Your task to perform on an android device: snooze an email in the gmail app Image 0: 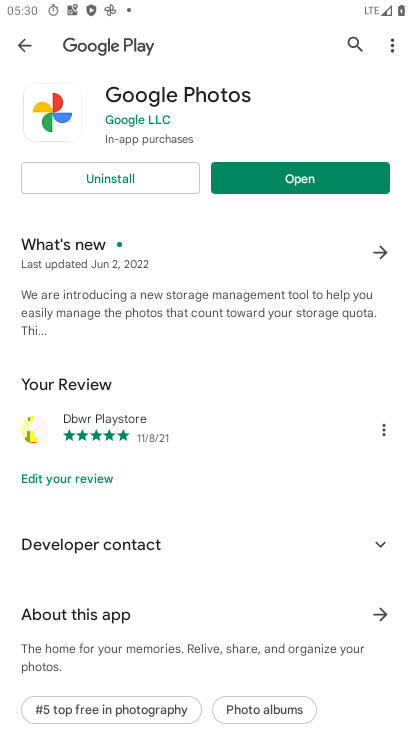
Step 0: press home button
Your task to perform on an android device: snooze an email in the gmail app Image 1: 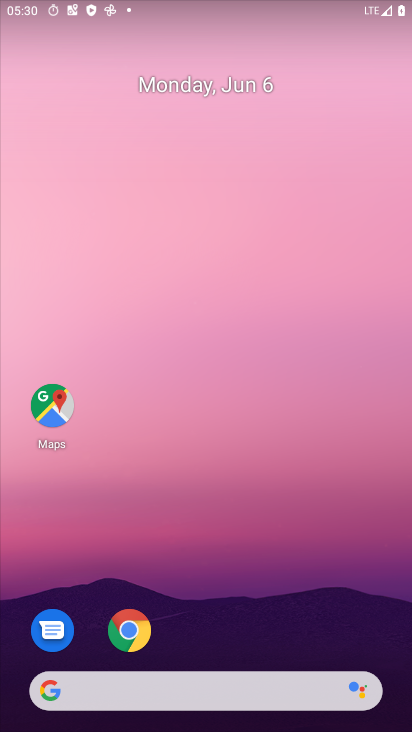
Step 1: drag from (233, 631) to (224, 91)
Your task to perform on an android device: snooze an email in the gmail app Image 2: 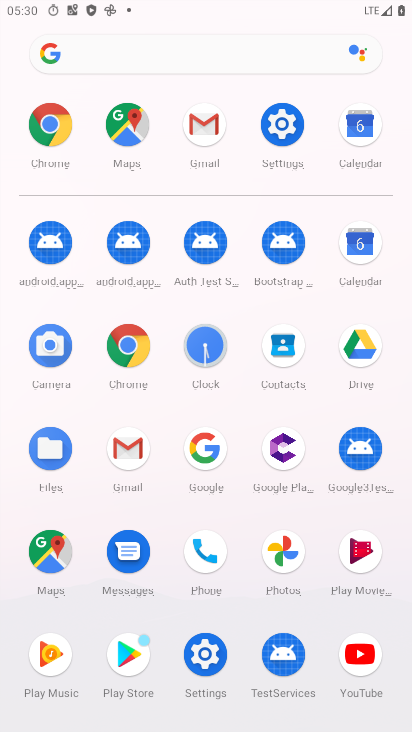
Step 2: click (121, 452)
Your task to perform on an android device: snooze an email in the gmail app Image 3: 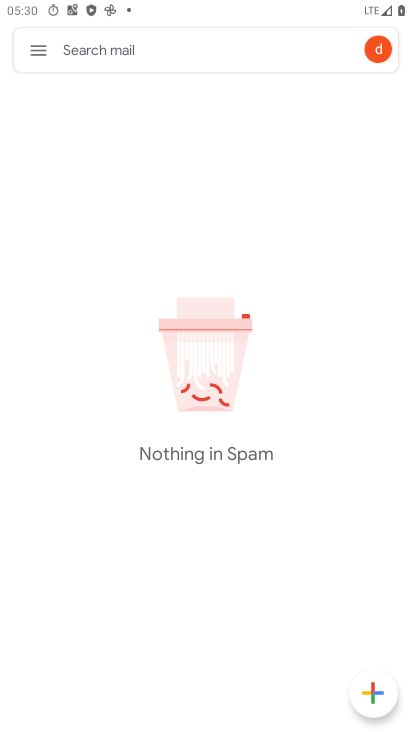
Step 3: click (40, 47)
Your task to perform on an android device: snooze an email in the gmail app Image 4: 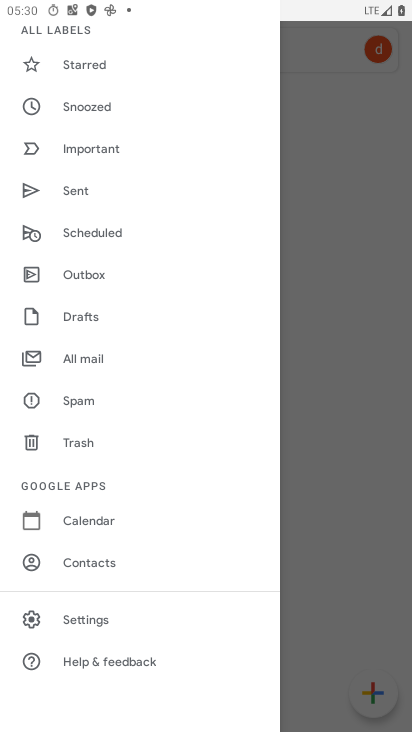
Step 4: click (83, 107)
Your task to perform on an android device: snooze an email in the gmail app Image 5: 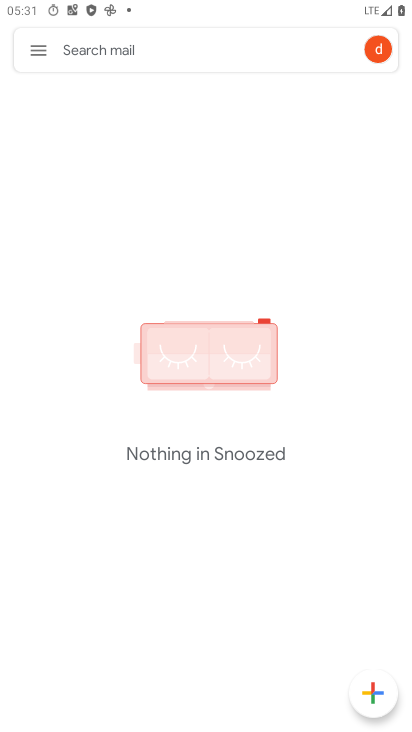
Step 5: task complete